Your task to perform on an android device: Open the map Image 0: 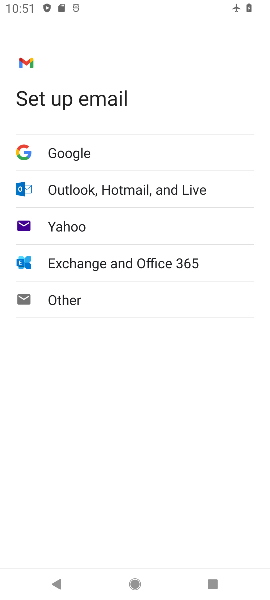
Step 0: press back button
Your task to perform on an android device: Open the map Image 1: 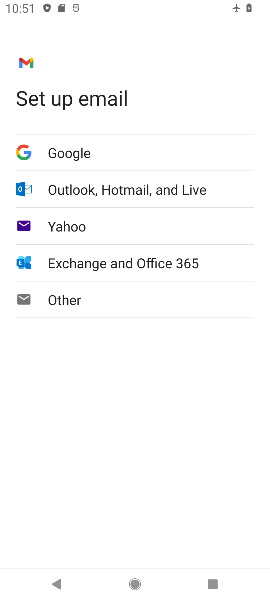
Step 1: press back button
Your task to perform on an android device: Open the map Image 2: 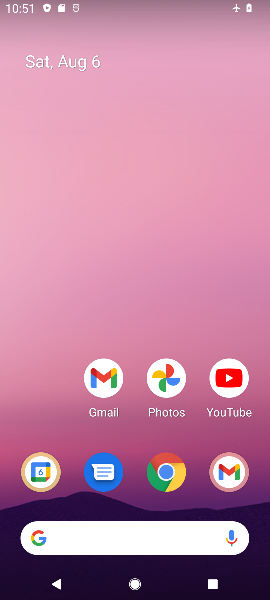
Step 2: drag from (156, 481) to (67, 101)
Your task to perform on an android device: Open the map Image 3: 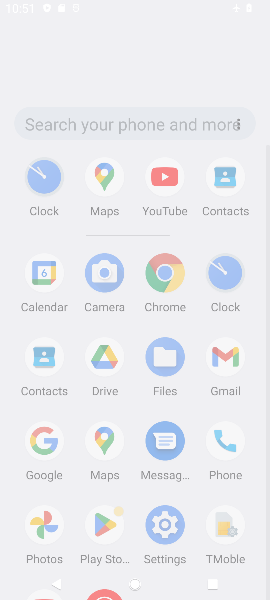
Step 3: drag from (109, 495) to (34, 195)
Your task to perform on an android device: Open the map Image 4: 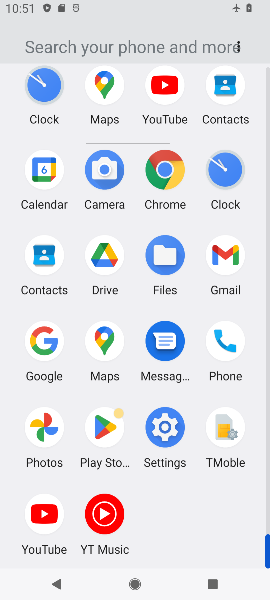
Step 4: drag from (97, 422) to (11, 64)
Your task to perform on an android device: Open the map Image 5: 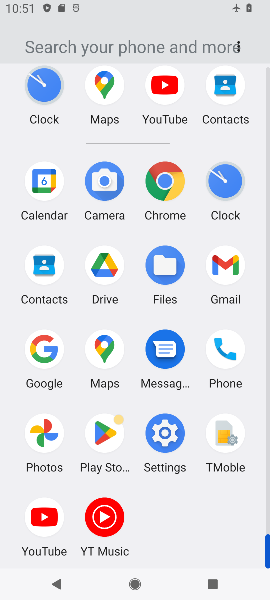
Step 5: click (109, 348)
Your task to perform on an android device: Open the map Image 6: 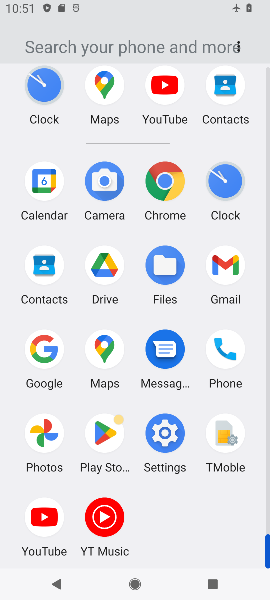
Step 6: click (109, 348)
Your task to perform on an android device: Open the map Image 7: 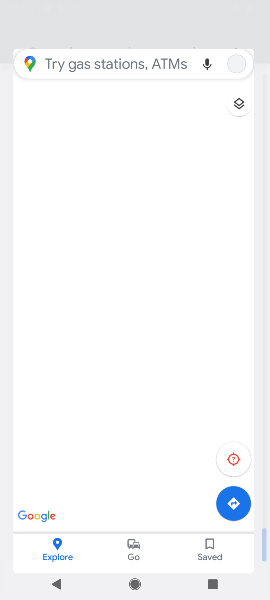
Step 7: click (105, 348)
Your task to perform on an android device: Open the map Image 8: 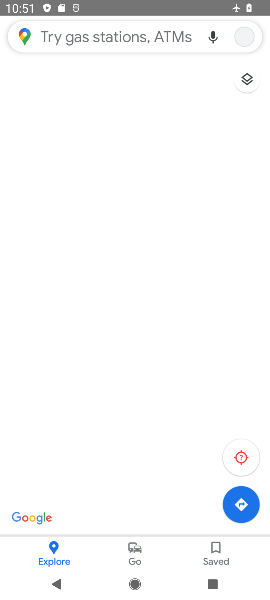
Step 8: click (104, 348)
Your task to perform on an android device: Open the map Image 9: 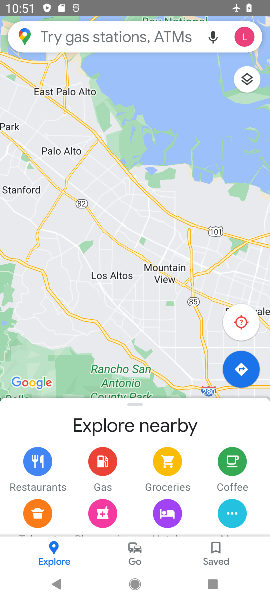
Step 9: task complete